Your task to perform on an android device: snooze an email in the gmail app Image 0: 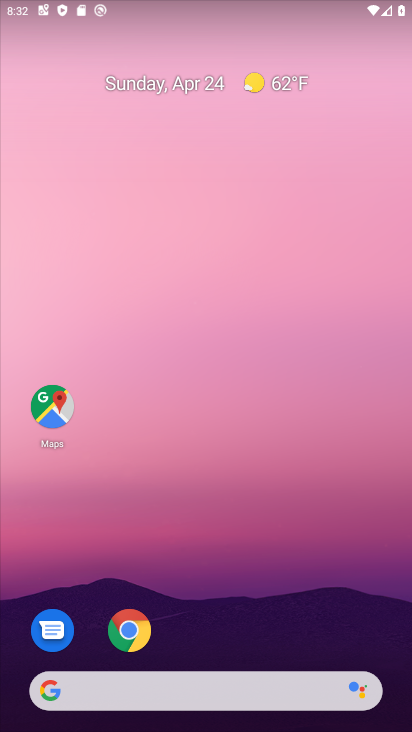
Step 0: drag from (297, 594) to (307, 39)
Your task to perform on an android device: snooze an email in the gmail app Image 1: 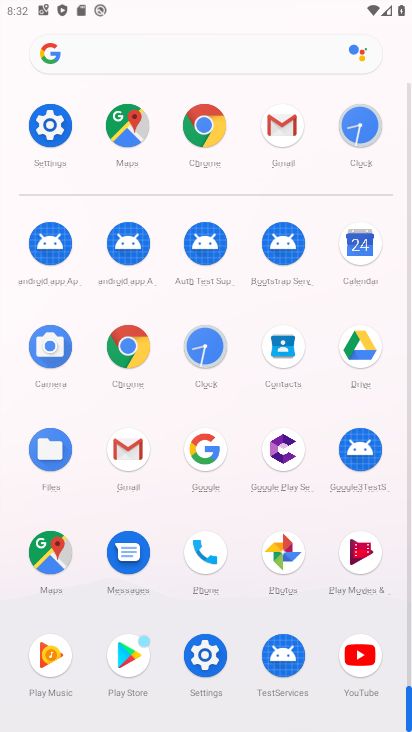
Step 1: drag from (11, 605) to (13, 271)
Your task to perform on an android device: snooze an email in the gmail app Image 2: 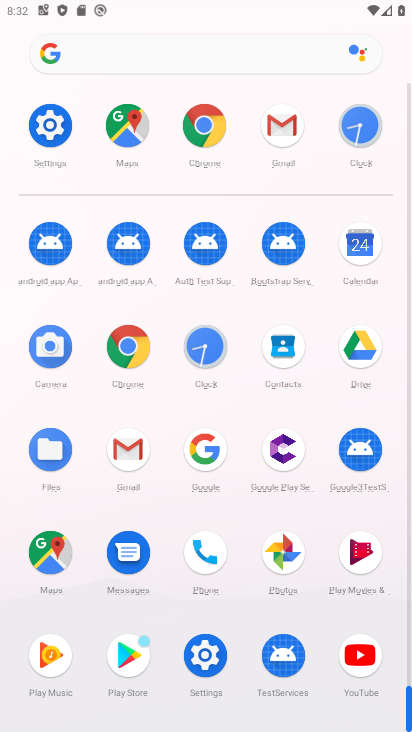
Step 2: click (126, 443)
Your task to perform on an android device: snooze an email in the gmail app Image 3: 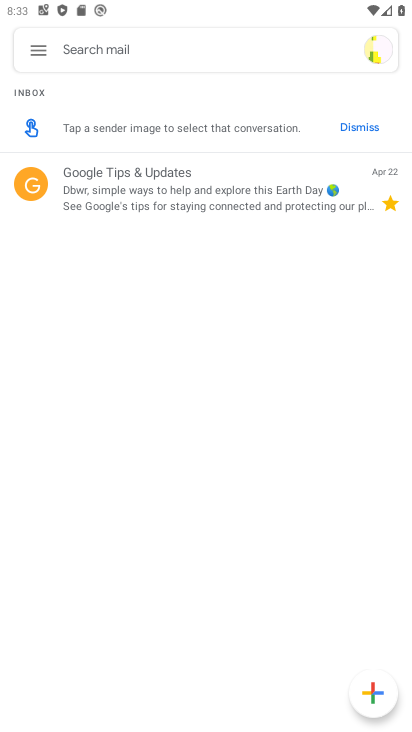
Step 3: click (40, 44)
Your task to perform on an android device: snooze an email in the gmail app Image 4: 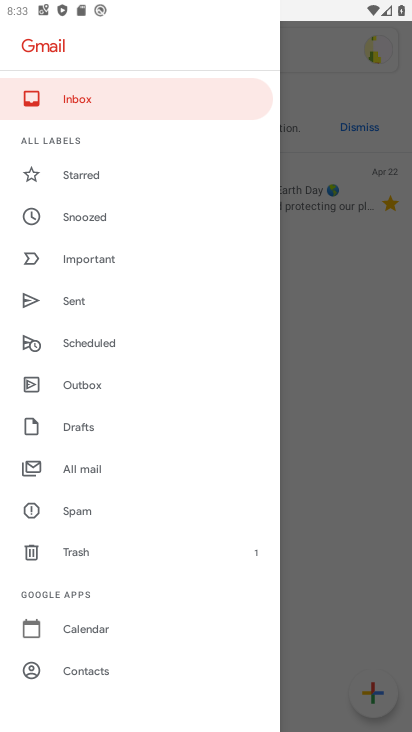
Step 4: drag from (169, 576) to (163, 236)
Your task to perform on an android device: snooze an email in the gmail app Image 5: 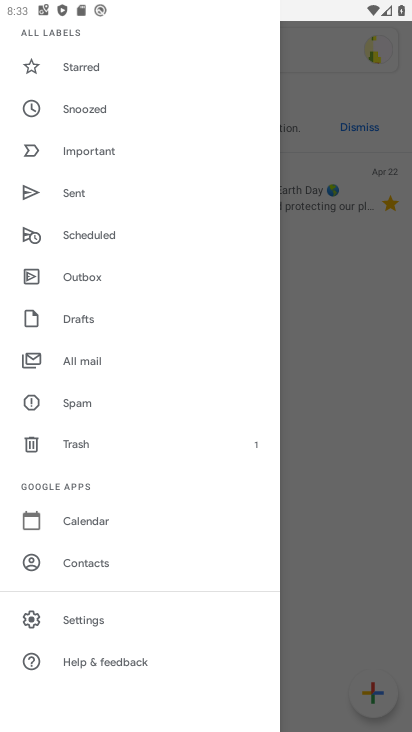
Step 5: click (87, 349)
Your task to perform on an android device: snooze an email in the gmail app Image 6: 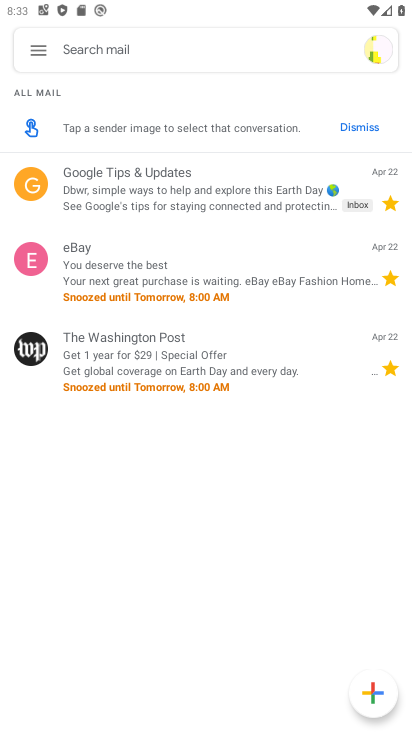
Step 6: click (225, 184)
Your task to perform on an android device: snooze an email in the gmail app Image 7: 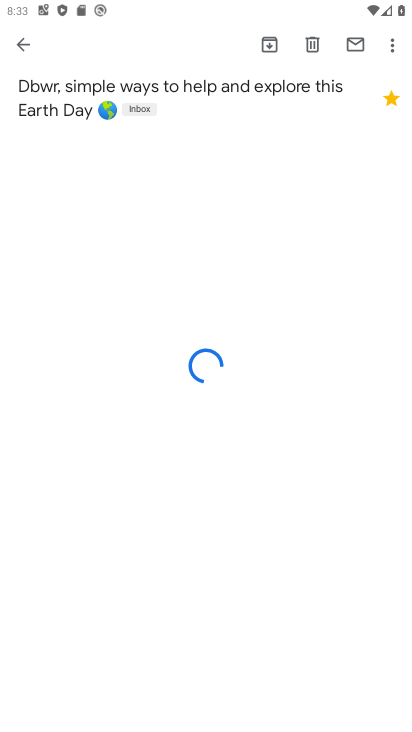
Step 7: click (395, 50)
Your task to perform on an android device: snooze an email in the gmail app Image 8: 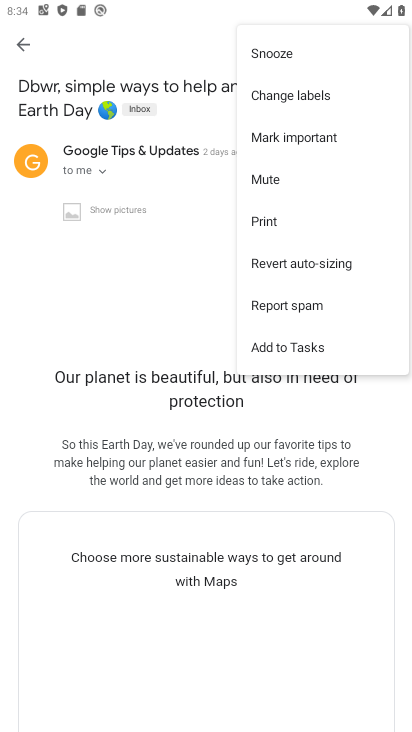
Step 8: click (307, 64)
Your task to perform on an android device: snooze an email in the gmail app Image 9: 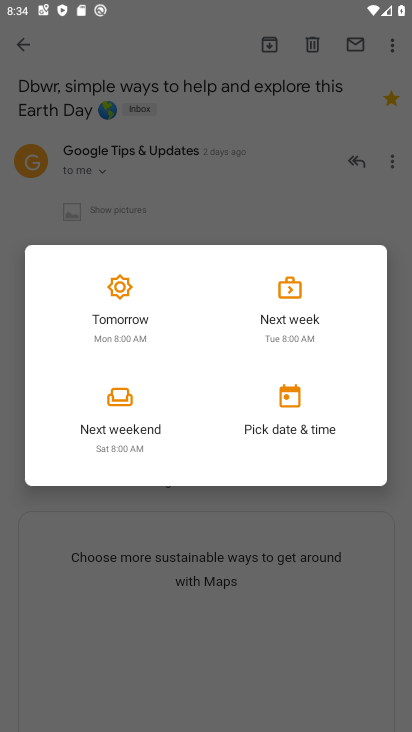
Step 9: click (126, 334)
Your task to perform on an android device: snooze an email in the gmail app Image 10: 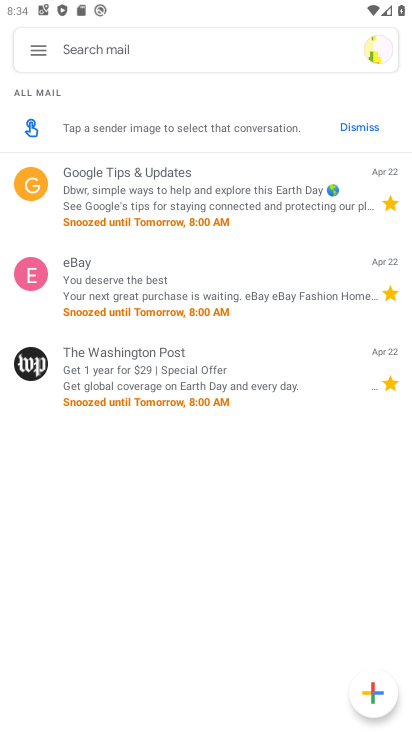
Step 10: task complete